Your task to perform on an android device: Open sound settings Image 0: 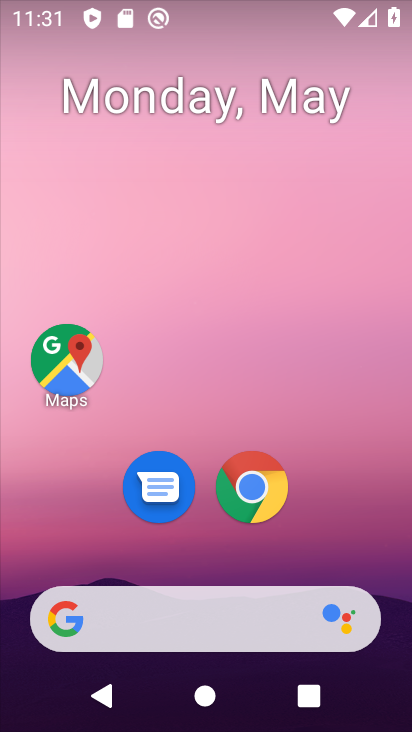
Step 0: drag from (25, 627) to (305, 146)
Your task to perform on an android device: Open sound settings Image 1: 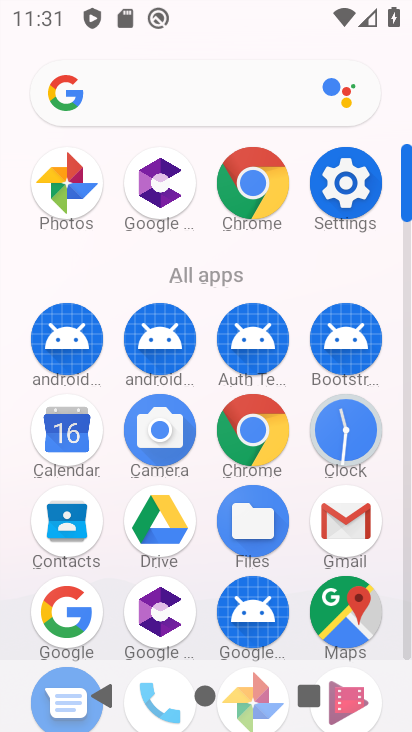
Step 1: click (351, 177)
Your task to perform on an android device: Open sound settings Image 2: 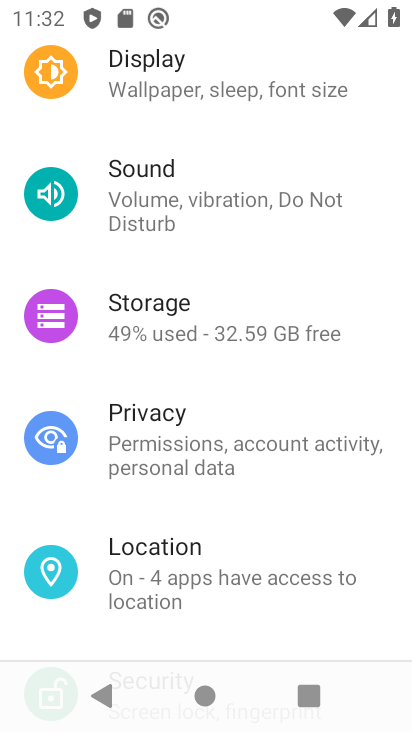
Step 2: click (140, 209)
Your task to perform on an android device: Open sound settings Image 3: 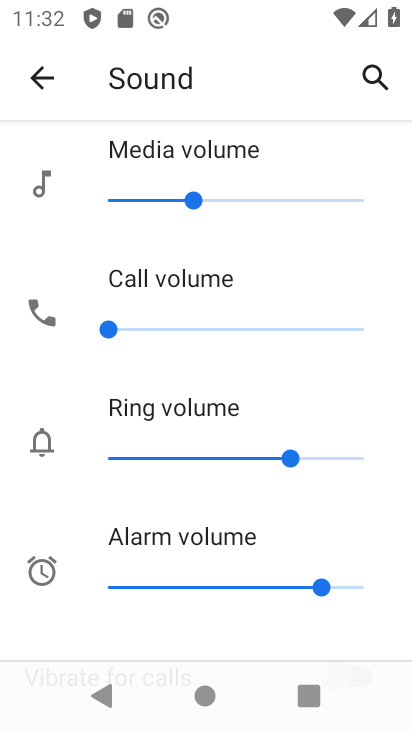
Step 3: task complete